Your task to perform on an android device: toggle javascript in the chrome app Image 0: 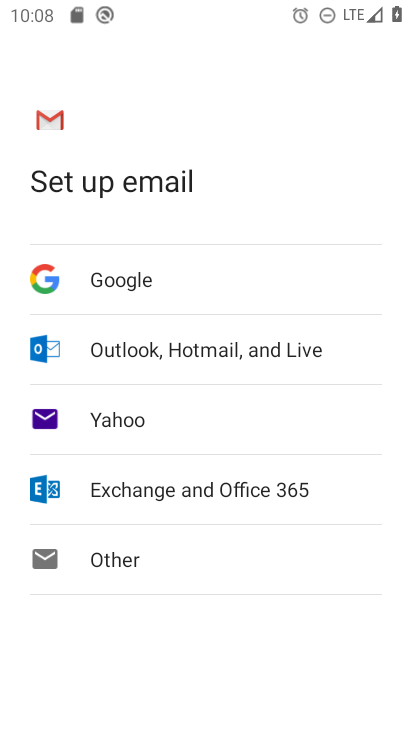
Step 0: press home button
Your task to perform on an android device: toggle javascript in the chrome app Image 1: 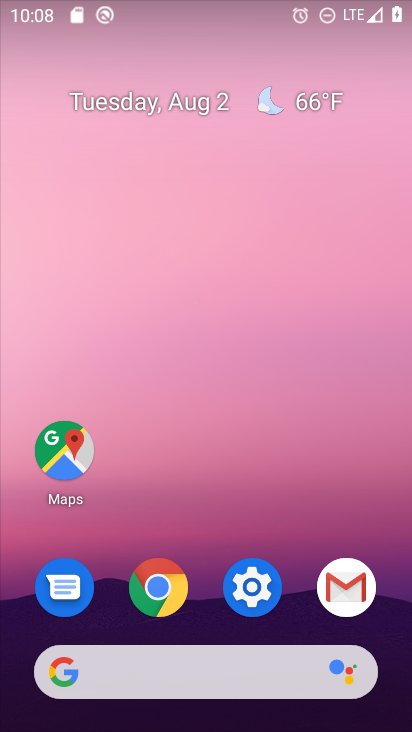
Step 1: click (250, 595)
Your task to perform on an android device: toggle javascript in the chrome app Image 2: 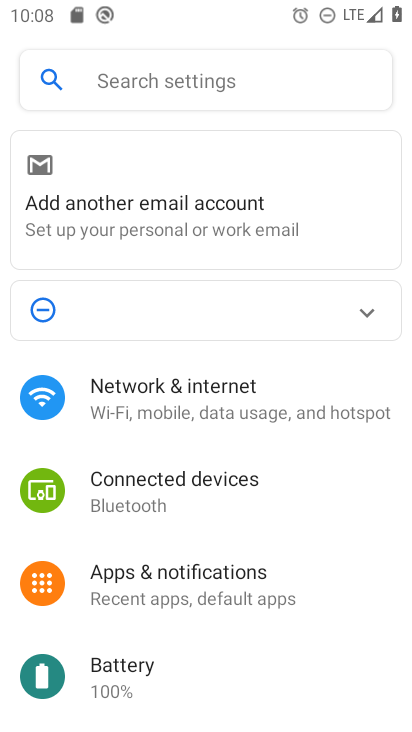
Step 2: press home button
Your task to perform on an android device: toggle javascript in the chrome app Image 3: 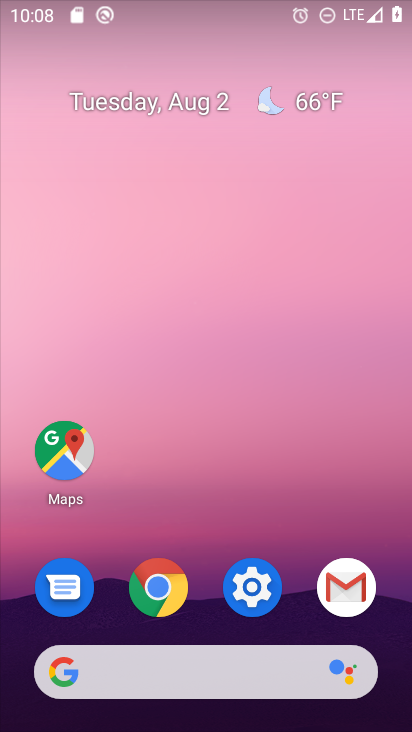
Step 3: click (159, 586)
Your task to perform on an android device: toggle javascript in the chrome app Image 4: 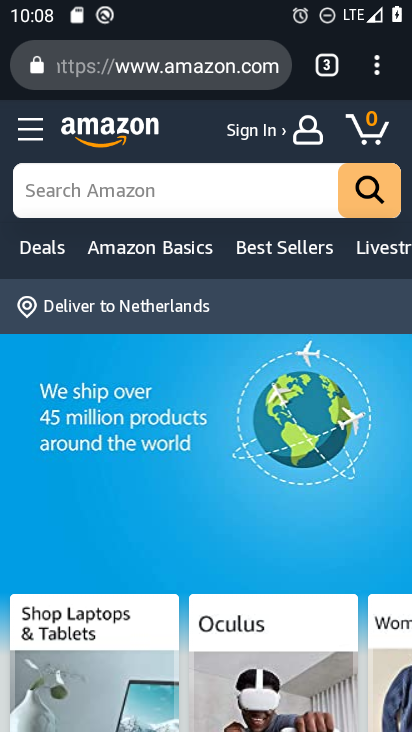
Step 4: click (377, 87)
Your task to perform on an android device: toggle javascript in the chrome app Image 5: 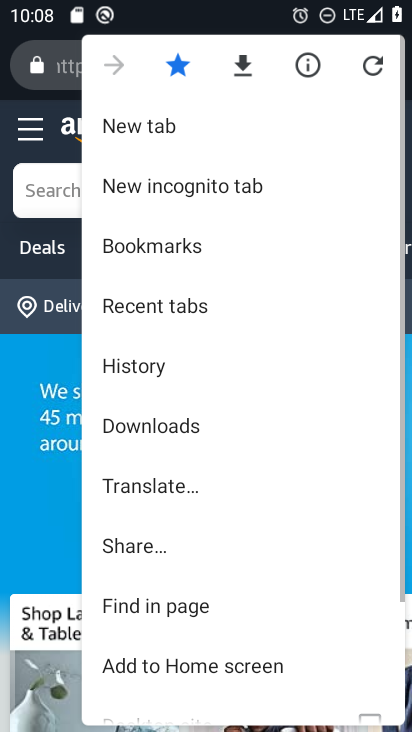
Step 5: drag from (193, 607) to (193, 375)
Your task to perform on an android device: toggle javascript in the chrome app Image 6: 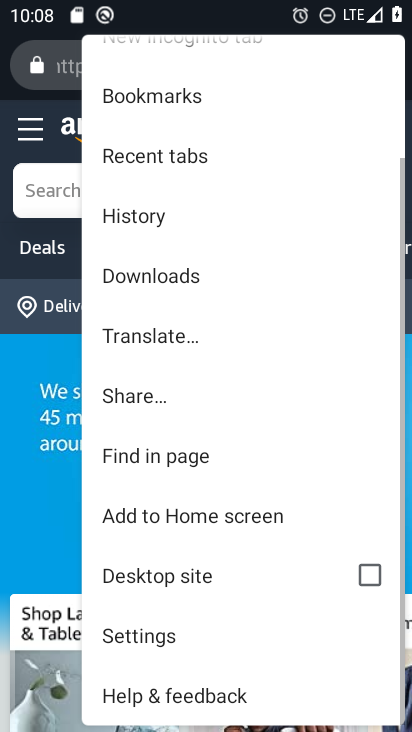
Step 6: click (161, 640)
Your task to perform on an android device: toggle javascript in the chrome app Image 7: 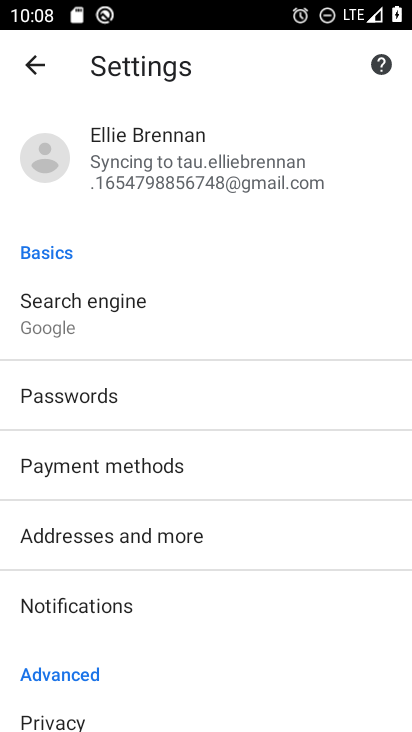
Step 7: drag from (136, 663) to (110, 386)
Your task to perform on an android device: toggle javascript in the chrome app Image 8: 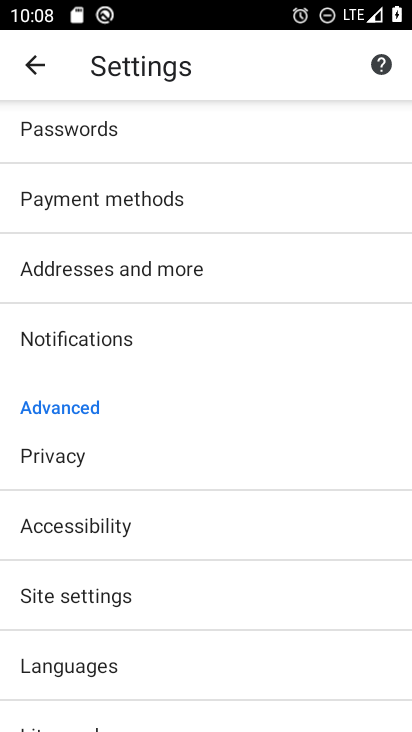
Step 8: click (99, 602)
Your task to perform on an android device: toggle javascript in the chrome app Image 9: 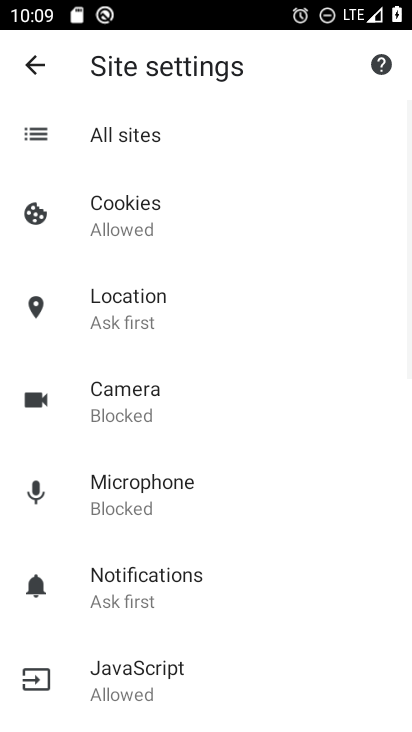
Step 9: click (145, 673)
Your task to perform on an android device: toggle javascript in the chrome app Image 10: 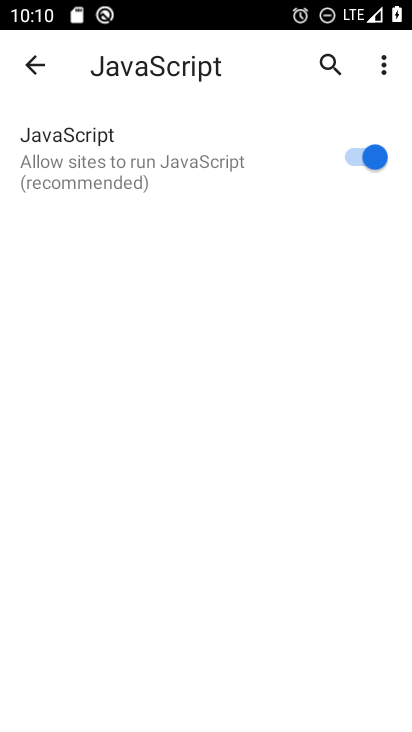
Step 10: task complete